Your task to perform on an android device: Open privacy settings Image 0: 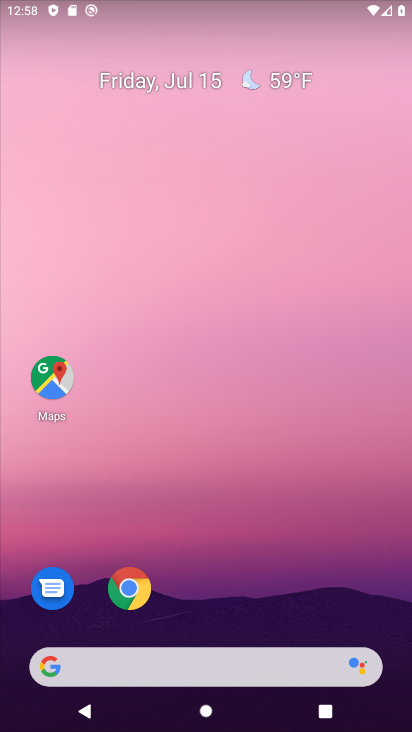
Step 0: drag from (227, 611) to (224, 108)
Your task to perform on an android device: Open privacy settings Image 1: 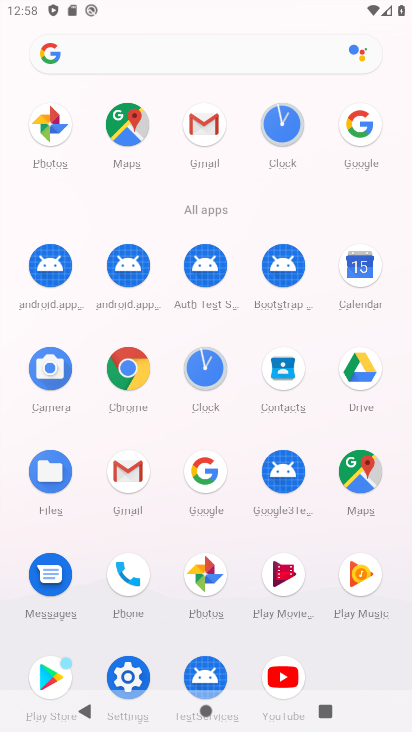
Step 1: click (134, 675)
Your task to perform on an android device: Open privacy settings Image 2: 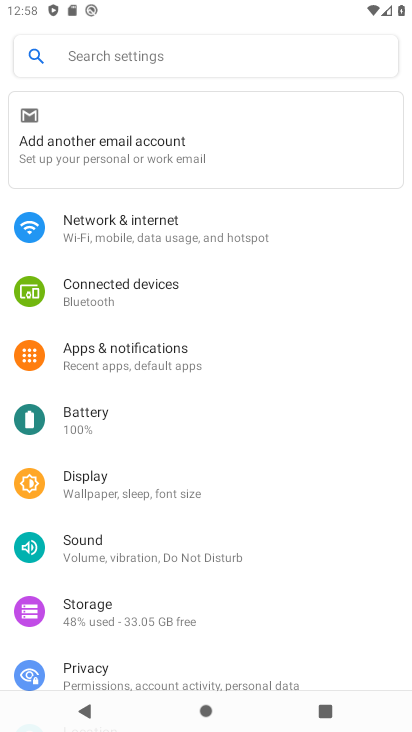
Step 2: drag from (140, 607) to (155, 342)
Your task to perform on an android device: Open privacy settings Image 3: 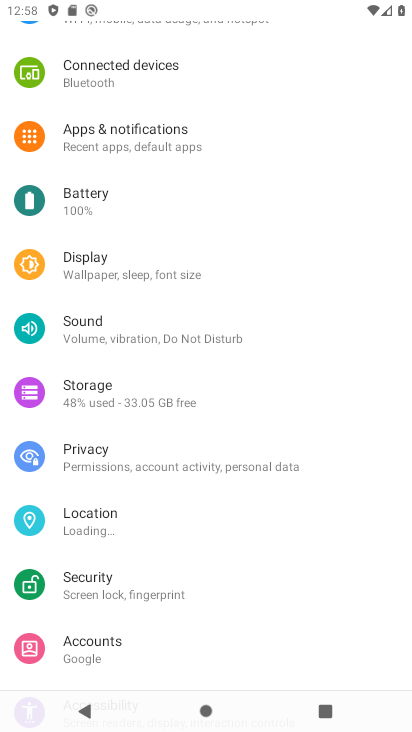
Step 3: click (149, 450)
Your task to perform on an android device: Open privacy settings Image 4: 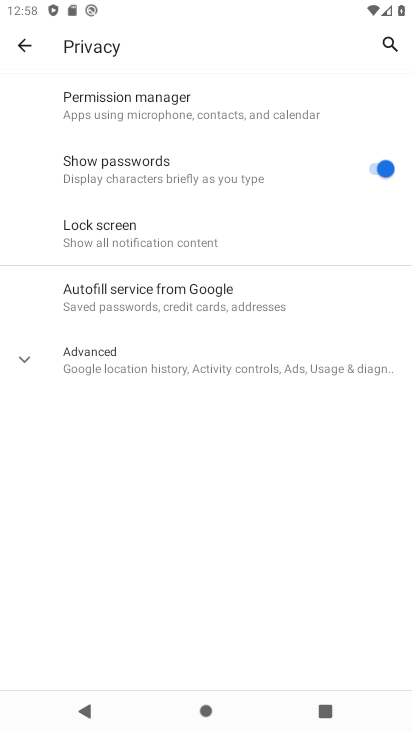
Step 4: task complete